Your task to perform on an android device: Open maps Image 0: 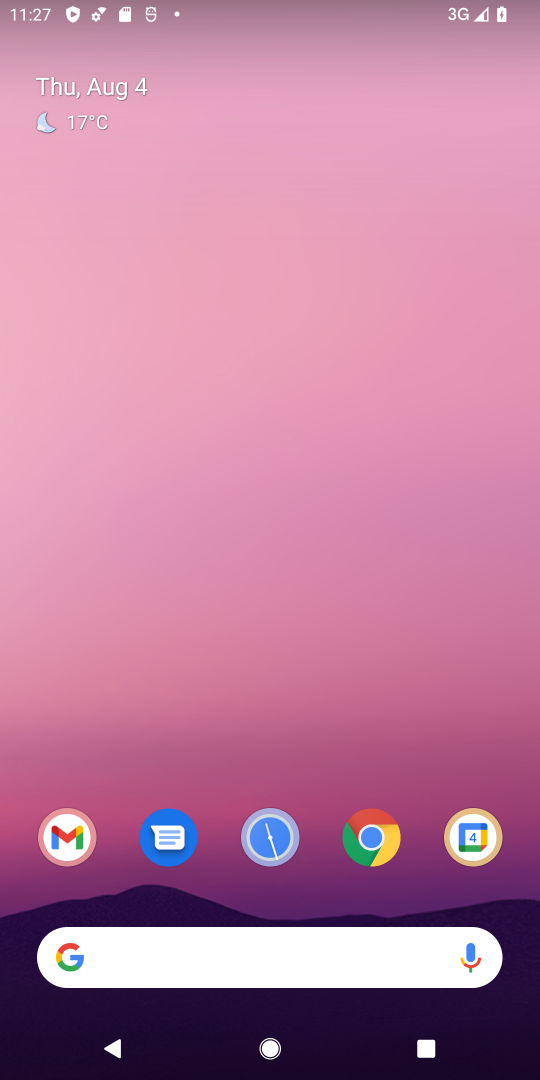
Step 0: drag from (432, 881) to (150, 55)
Your task to perform on an android device: Open maps Image 1: 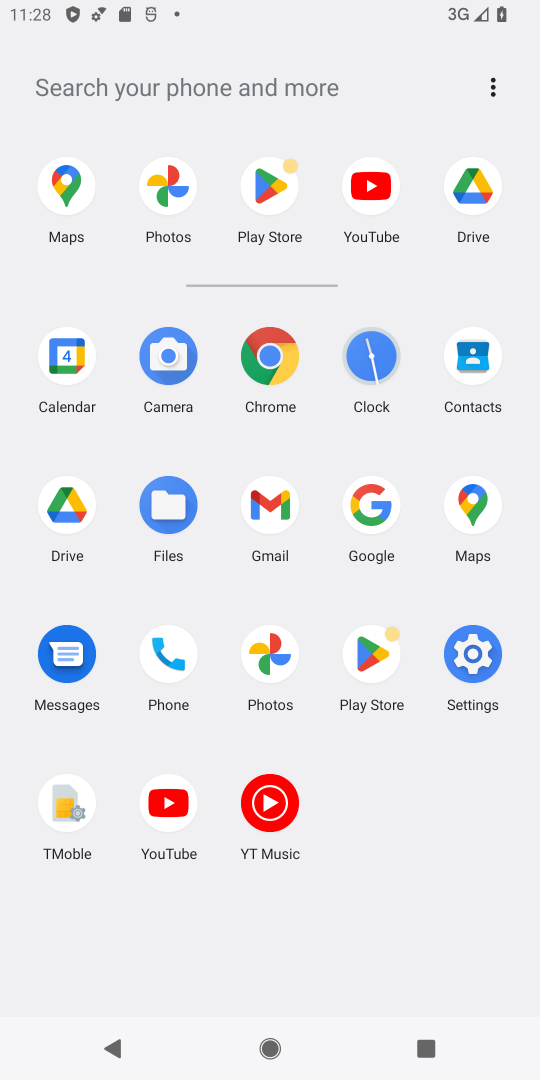
Step 1: click (482, 505)
Your task to perform on an android device: Open maps Image 2: 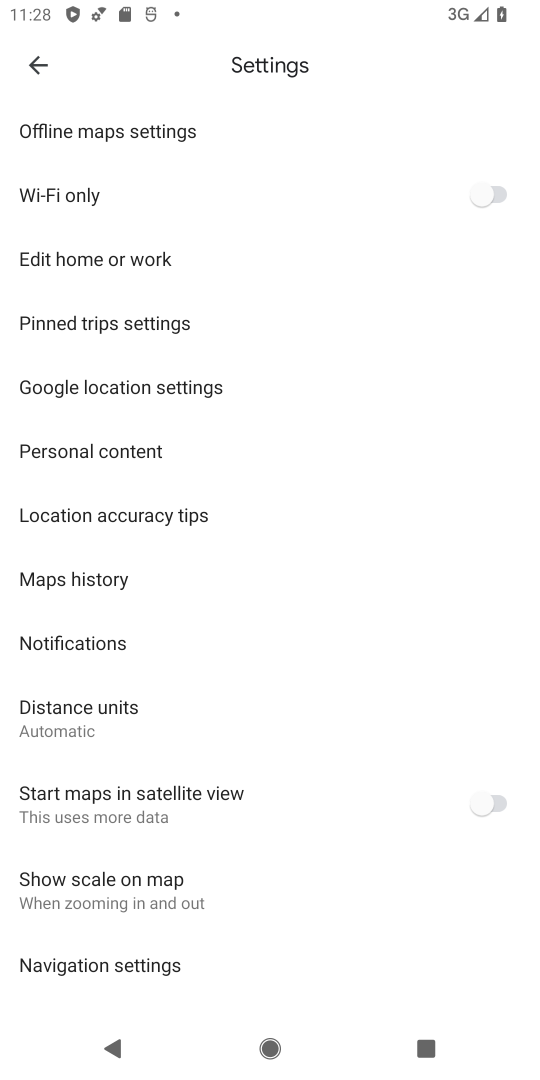
Step 2: task complete